Your task to perform on an android device: When is my next appointment? Image 0: 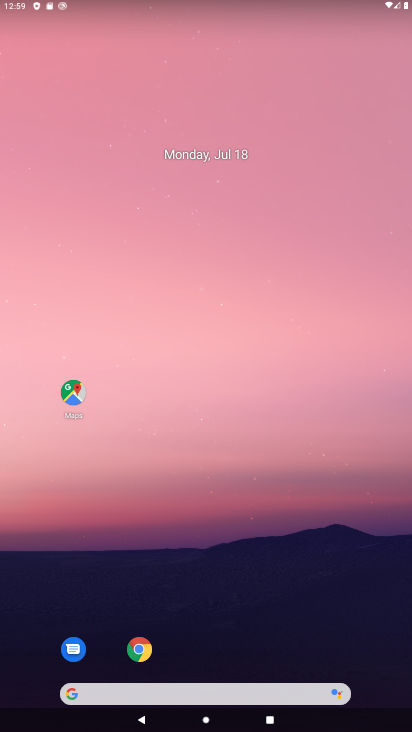
Step 0: drag from (198, 682) to (127, 157)
Your task to perform on an android device: When is my next appointment? Image 1: 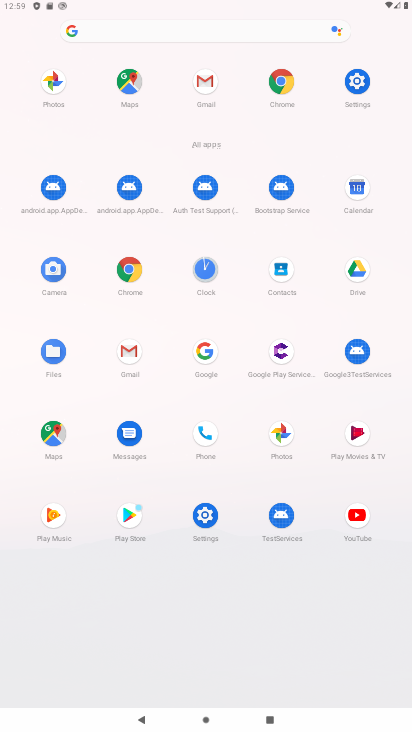
Step 1: click (353, 183)
Your task to perform on an android device: When is my next appointment? Image 2: 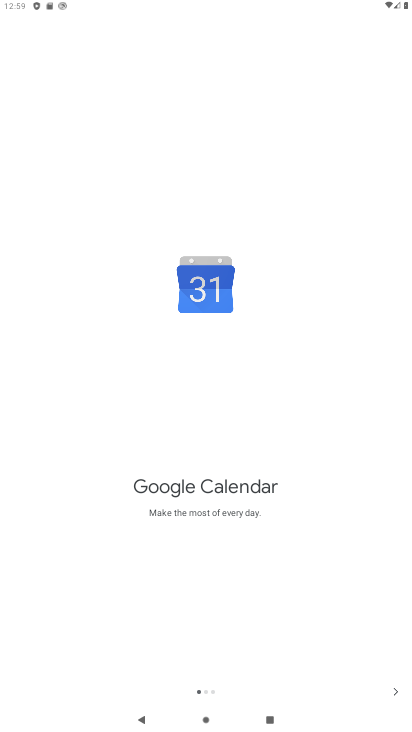
Step 2: click (400, 692)
Your task to perform on an android device: When is my next appointment? Image 3: 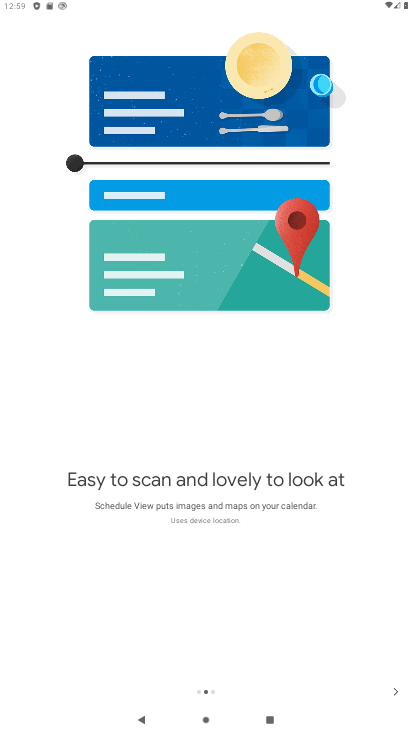
Step 3: click (411, 683)
Your task to perform on an android device: When is my next appointment? Image 4: 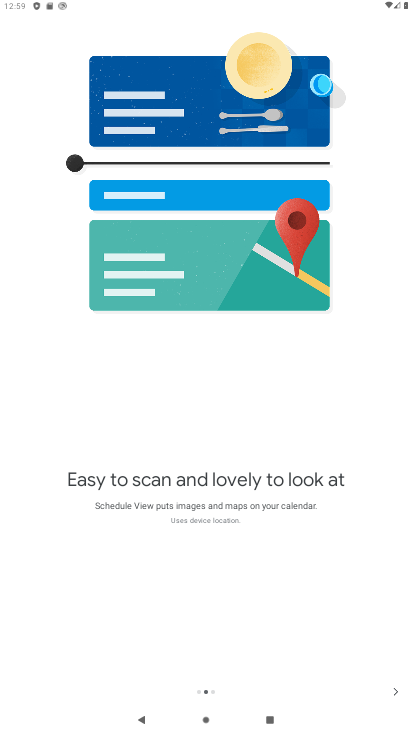
Step 4: click (389, 691)
Your task to perform on an android device: When is my next appointment? Image 5: 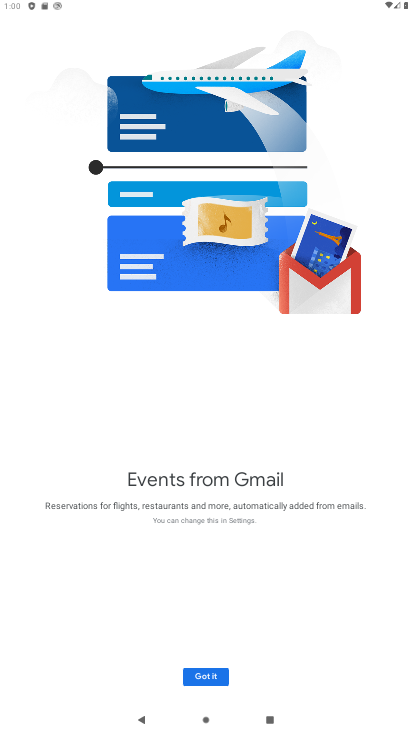
Step 5: click (197, 674)
Your task to perform on an android device: When is my next appointment? Image 6: 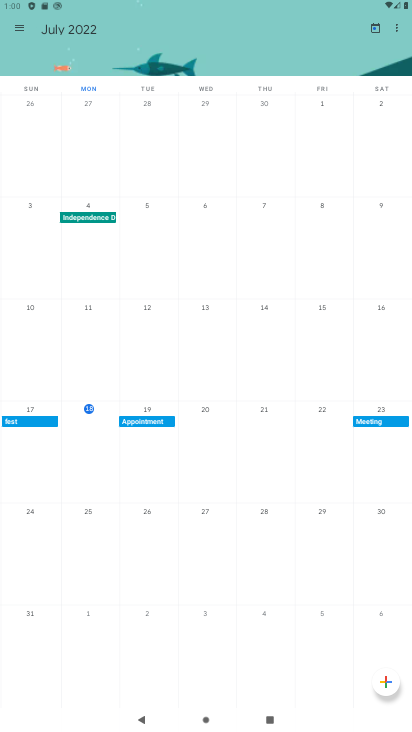
Step 6: click (147, 420)
Your task to perform on an android device: When is my next appointment? Image 7: 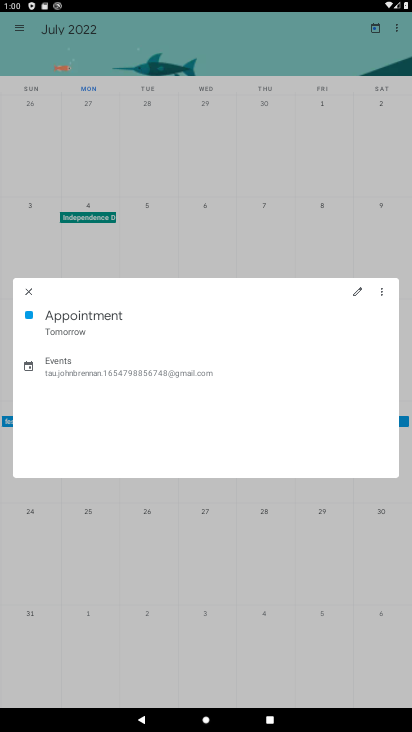
Step 7: task complete